Your task to perform on an android device: turn off priority inbox in the gmail app Image 0: 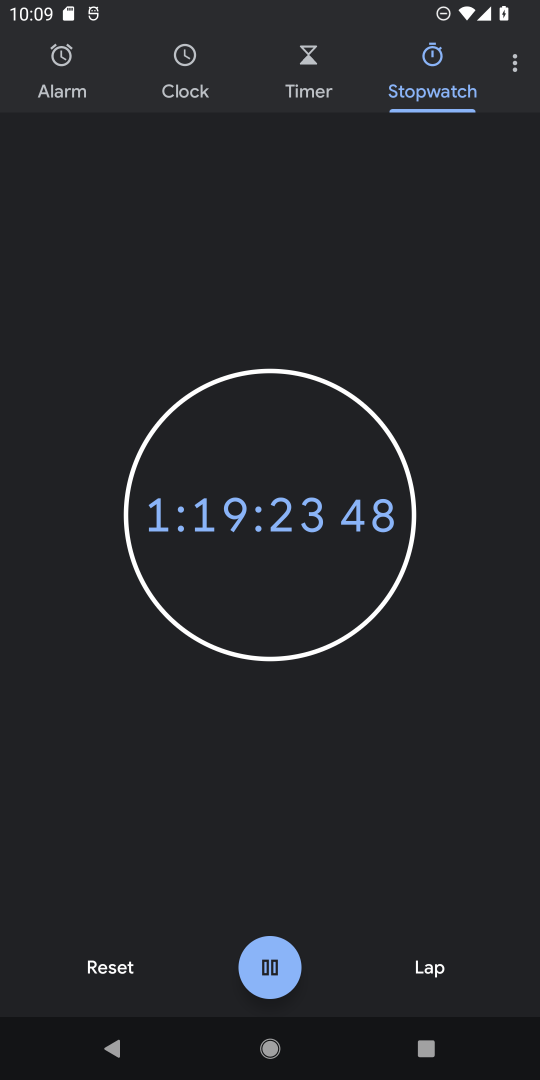
Step 0: press home button
Your task to perform on an android device: turn off priority inbox in the gmail app Image 1: 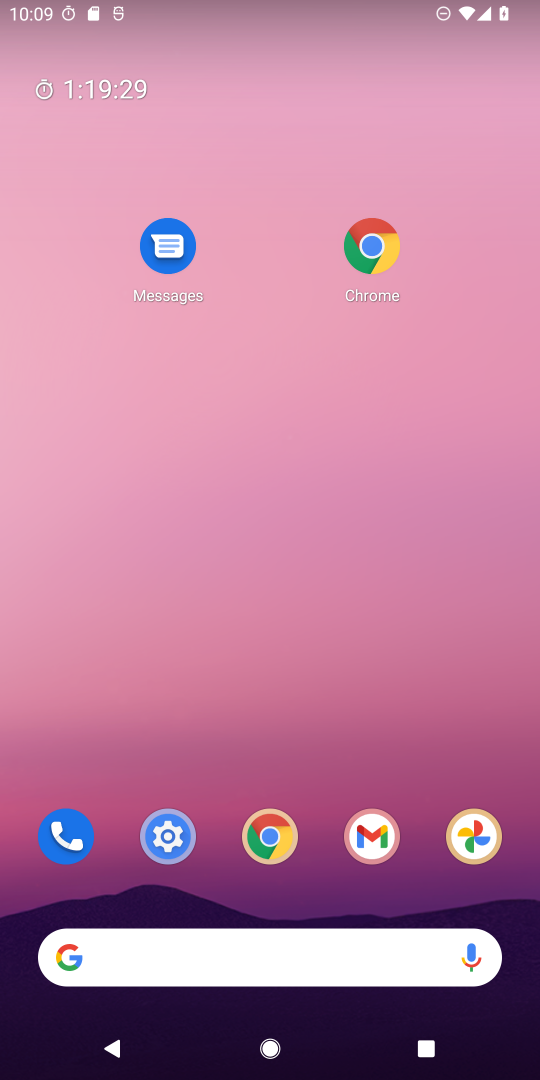
Step 1: drag from (232, 737) to (274, 280)
Your task to perform on an android device: turn off priority inbox in the gmail app Image 2: 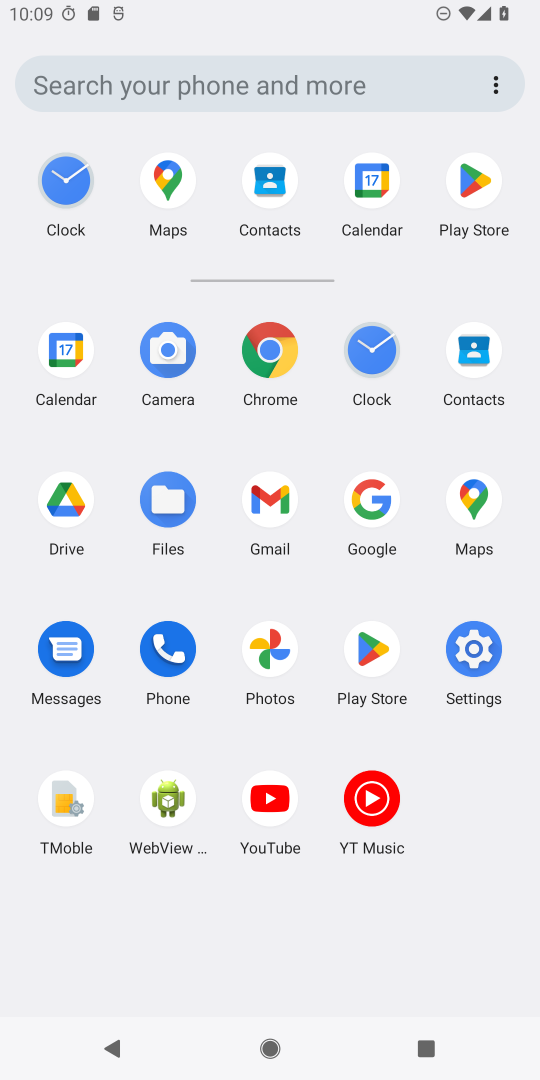
Step 2: click (275, 491)
Your task to perform on an android device: turn off priority inbox in the gmail app Image 3: 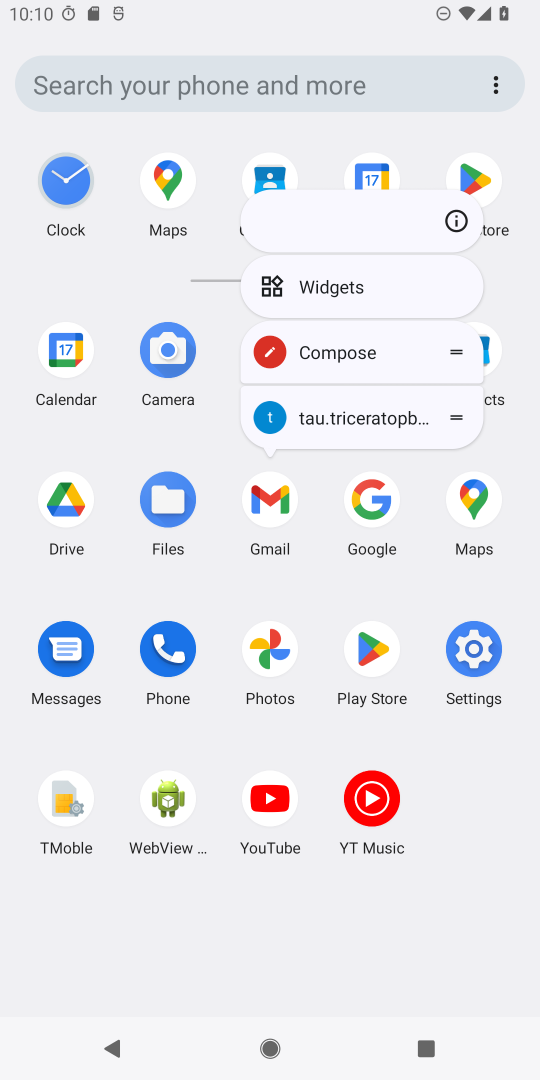
Step 3: click (278, 480)
Your task to perform on an android device: turn off priority inbox in the gmail app Image 4: 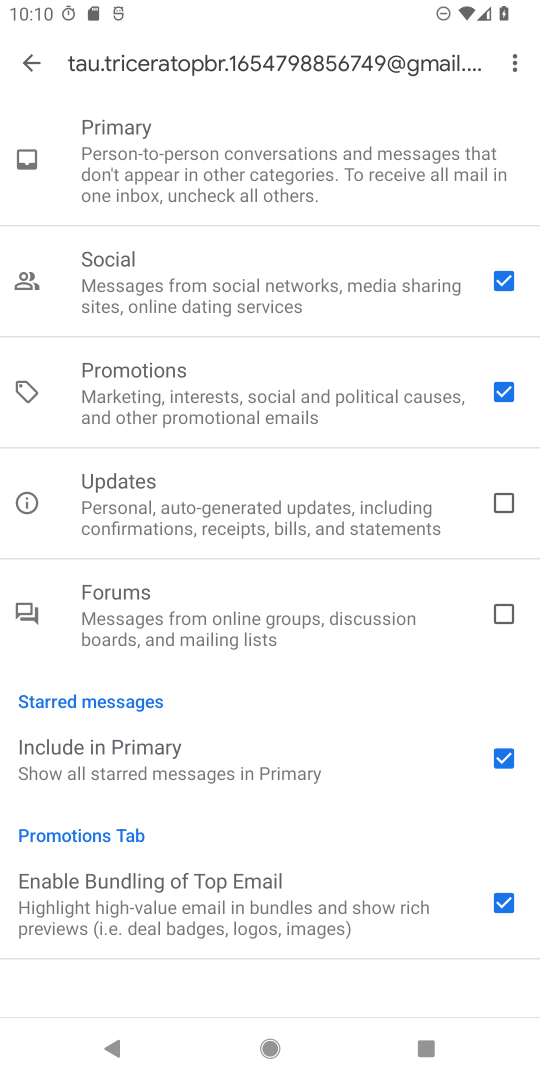
Step 4: click (26, 55)
Your task to perform on an android device: turn off priority inbox in the gmail app Image 5: 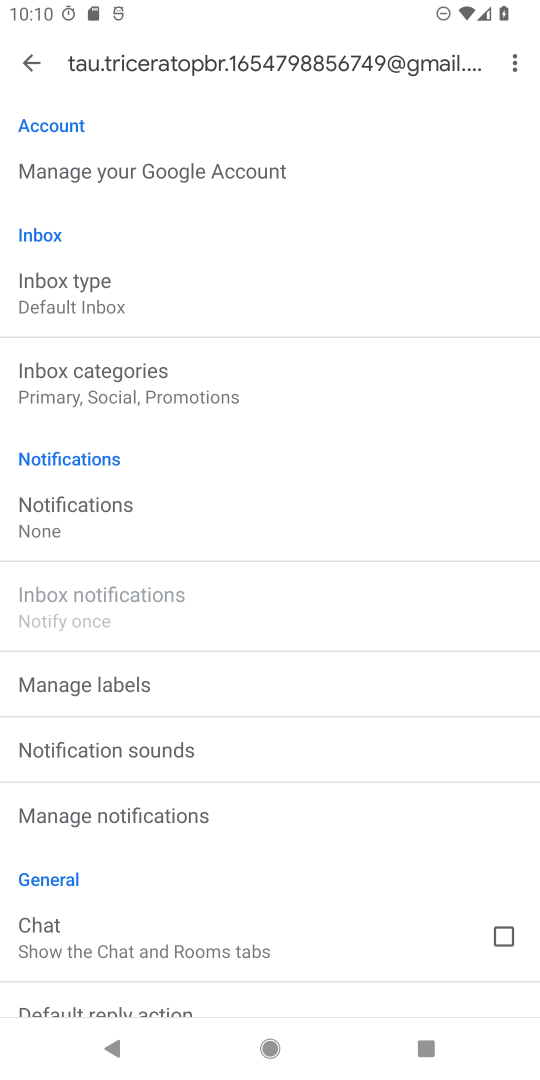
Step 5: drag from (101, 299) to (96, 570)
Your task to perform on an android device: turn off priority inbox in the gmail app Image 6: 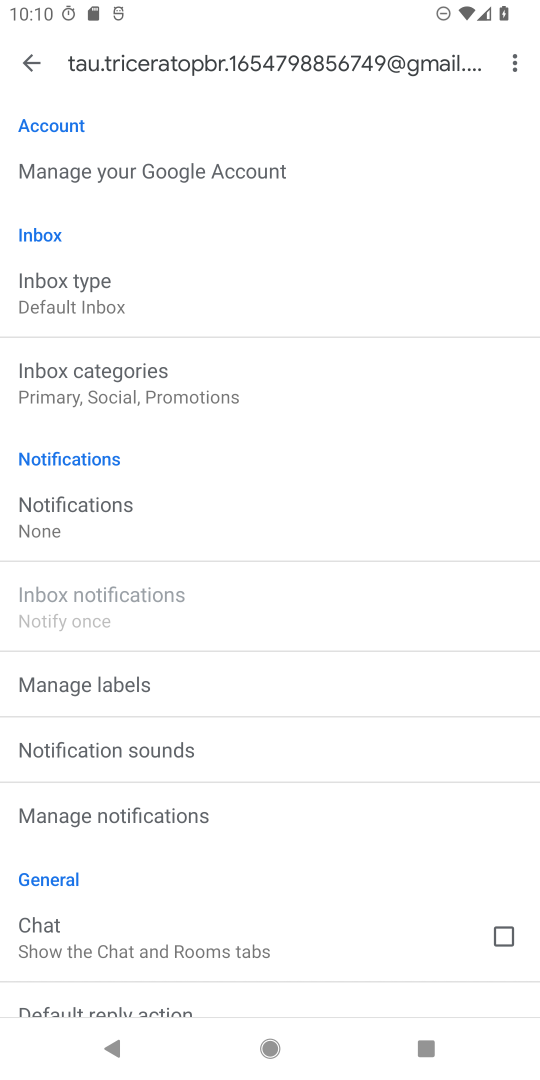
Step 6: click (103, 313)
Your task to perform on an android device: turn off priority inbox in the gmail app Image 7: 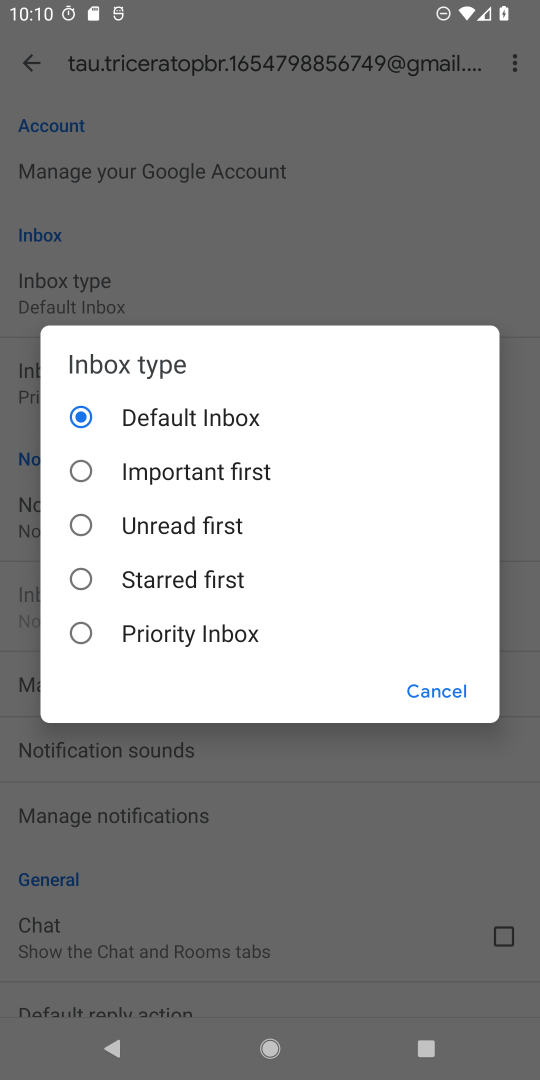
Step 7: task complete